Your task to perform on an android device: turn on notifications settings in the gmail app Image 0: 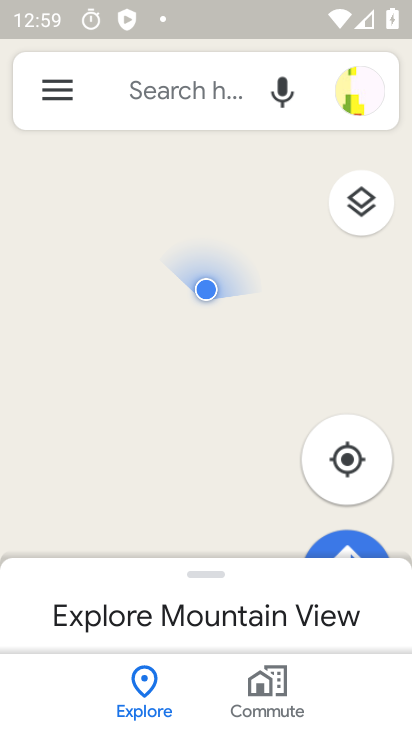
Step 0: press home button
Your task to perform on an android device: turn on notifications settings in the gmail app Image 1: 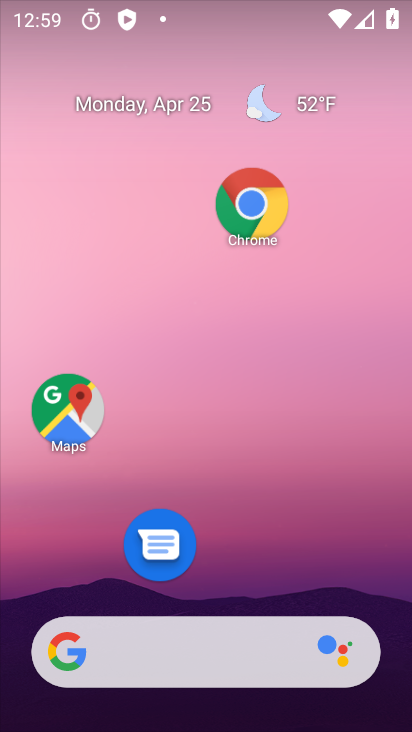
Step 1: drag from (327, 653) to (364, 316)
Your task to perform on an android device: turn on notifications settings in the gmail app Image 2: 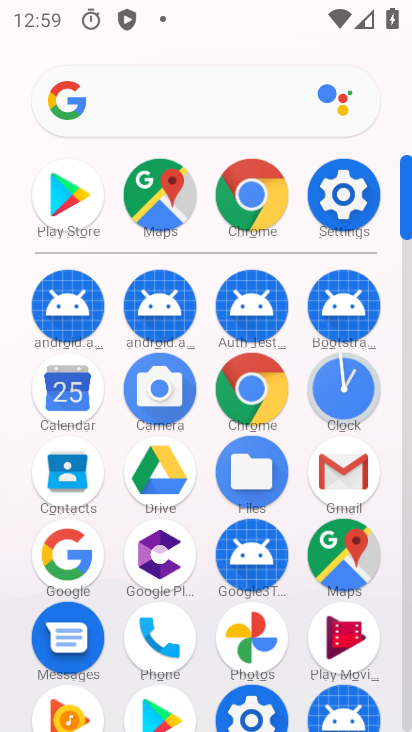
Step 2: click (341, 459)
Your task to perform on an android device: turn on notifications settings in the gmail app Image 3: 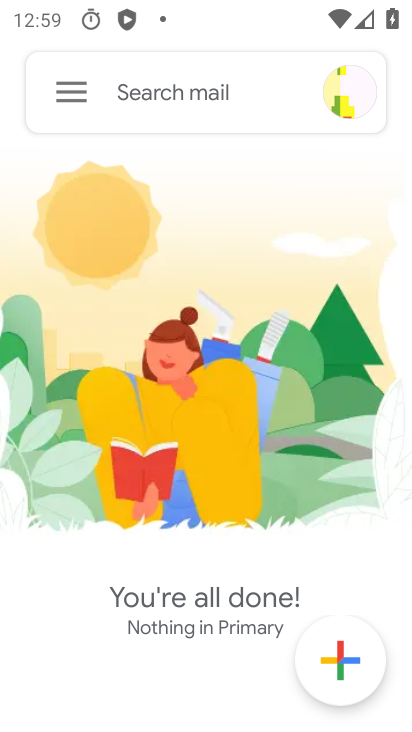
Step 3: click (76, 95)
Your task to perform on an android device: turn on notifications settings in the gmail app Image 4: 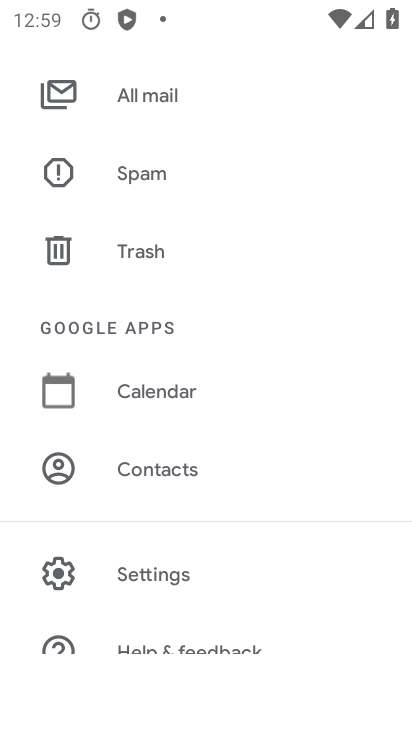
Step 4: click (120, 582)
Your task to perform on an android device: turn on notifications settings in the gmail app Image 5: 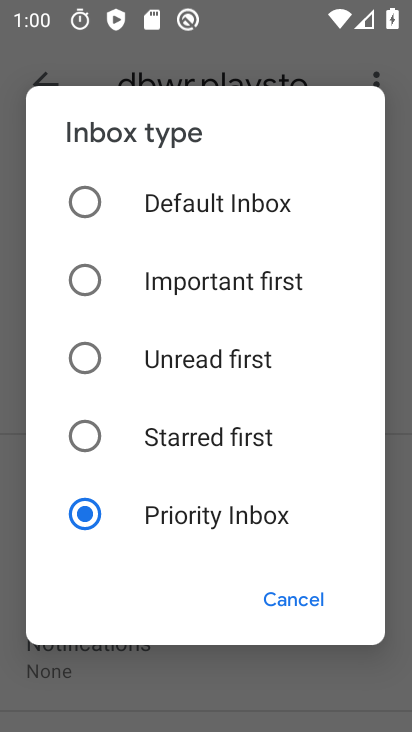
Step 5: click (290, 610)
Your task to perform on an android device: turn on notifications settings in the gmail app Image 6: 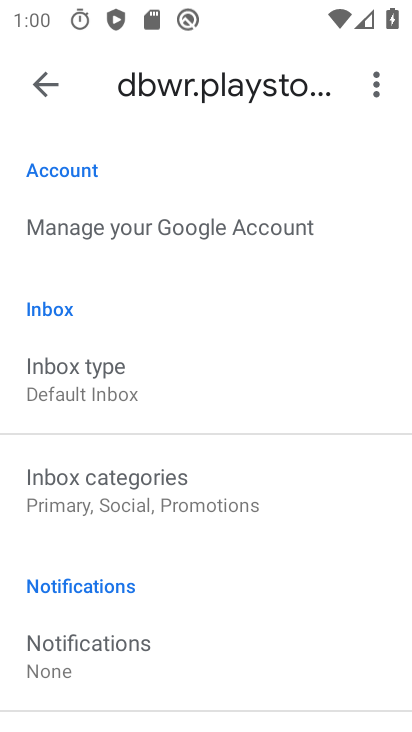
Step 6: click (96, 640)
Your task to perform on an android device: turn on notifications settings in the gmail app Image 7: 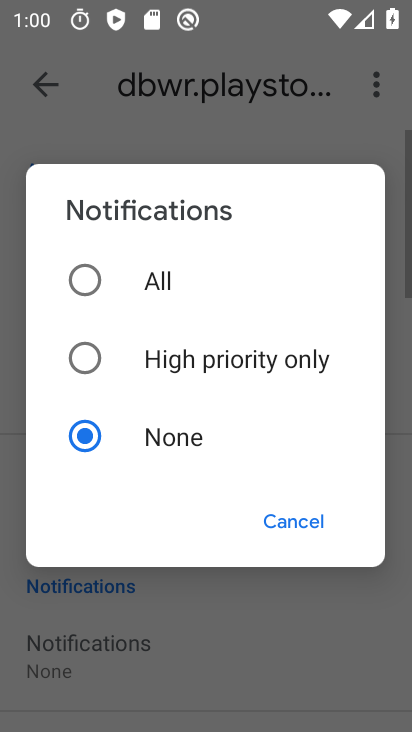
Step 7: click (169, 301)
Your task to perform on an android device: turn on notifications settings in the gmail app Image 8: 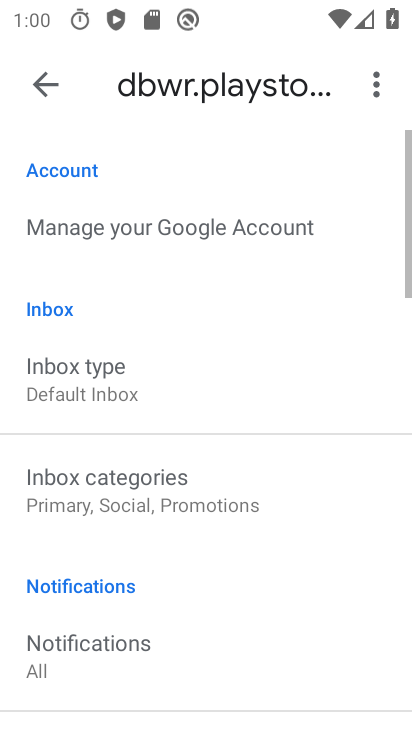
Step 8: click (63, 634)
Your task to perform on an android device: turn on notifications settings in the gmail app Image 9: 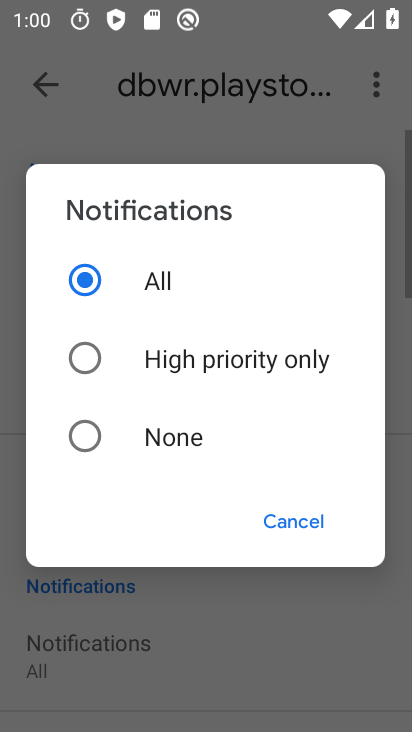
Step 9: task complete